Your task to perform on an android device: allow notifications from all sites in the chrome app Image 0: 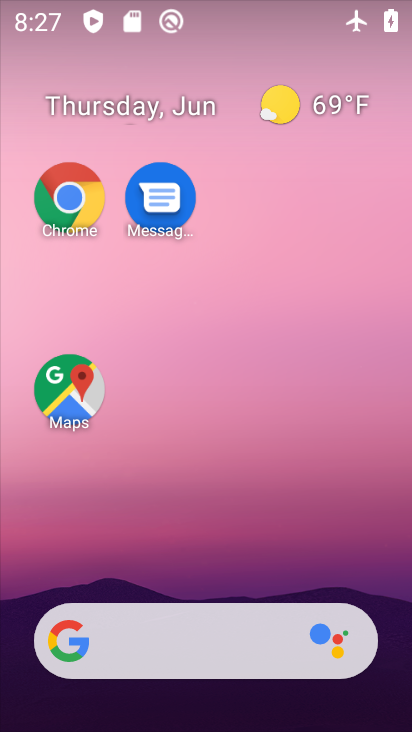
Step 0: click (63, 183)
Your task to perform on an android device: allow notifications from all sites in the chrome app Image 1: 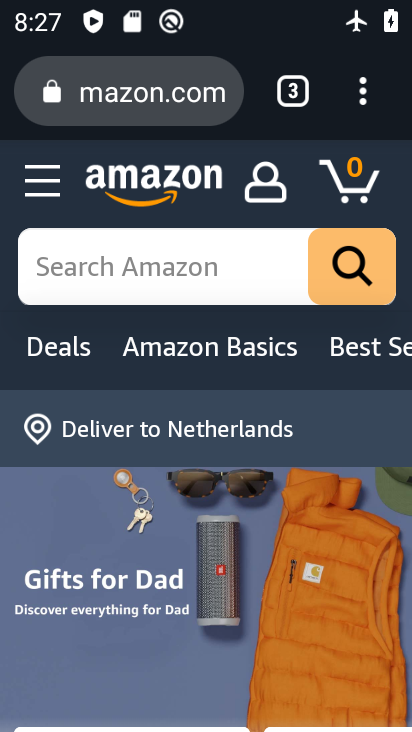
Step 1: click (359, 99)
Your task to perform on an android device: allow notifications from all sites in the chrome app Image 2: 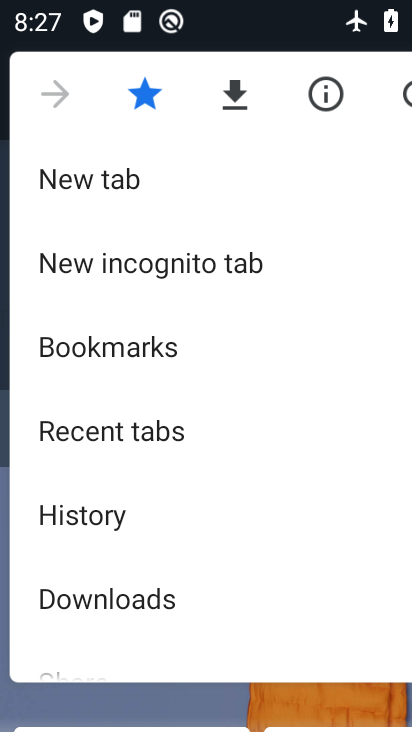
Step 2: drag from (294, 614) to (46, 8)
Your task to perform on an android device: allow notifications from all sites in the chrome app Image 3: 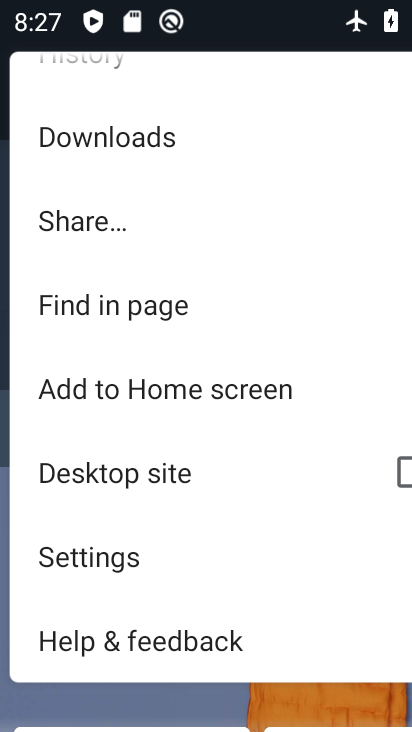
Step 3: click (72, 537)
Your task to perform on an android device: allow notifications from all sites in the chrome app Image 4: 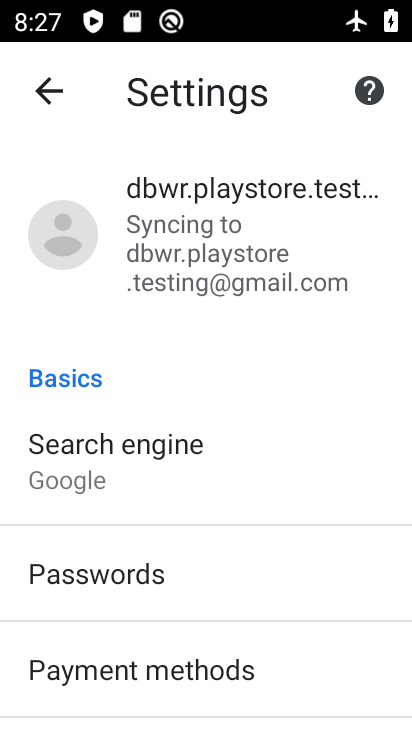
Step 4: drag from (140, 634) to (189, 186)
Your task to perform on an android device: allow notifications from all sites in the chrome app Image 5: 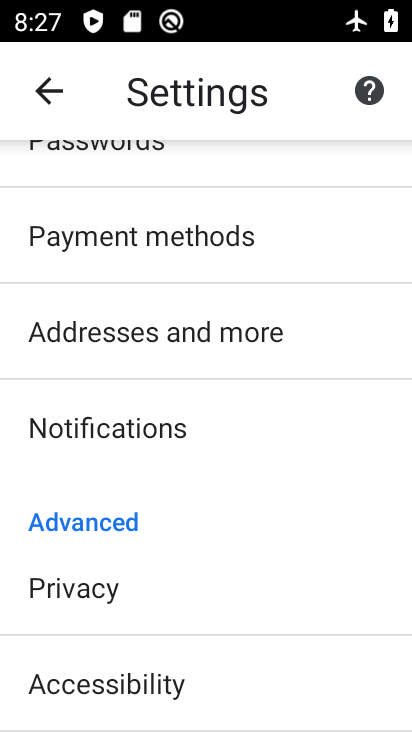
Step 5: drag from (140, 671) to (142, 315)
Your task to perform on an android device: allow notifications from all sites in the chrome app Image 6: 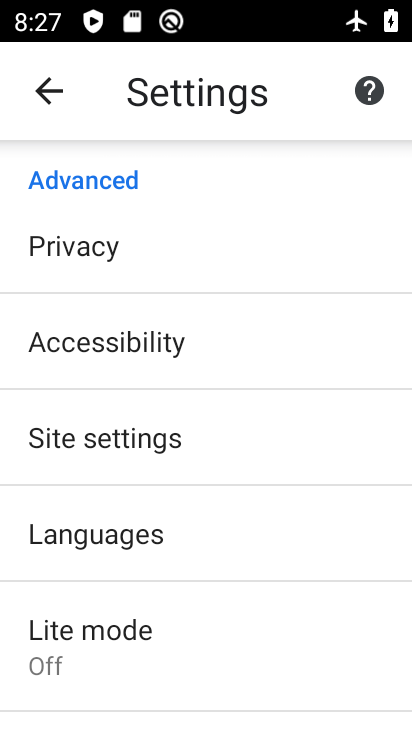
Step 6: click (137, 456)
Your task to perform on an android device: allow notifications from all sites in the chrome app Image 7: 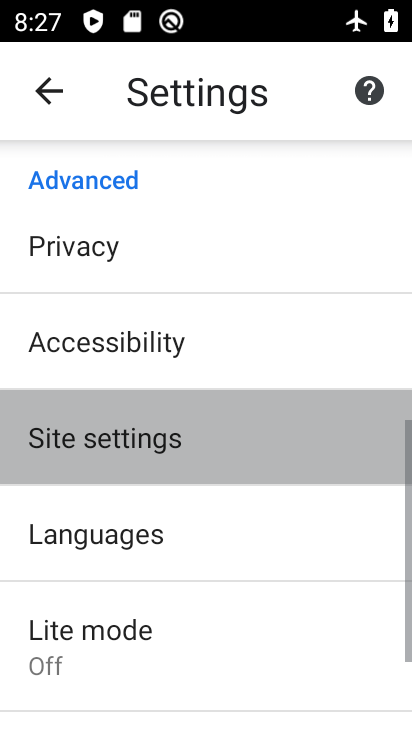
Step 7: click (137, 456)
Your task to perform on an android device: allow notifications from all sites in the chrome app Image 8: 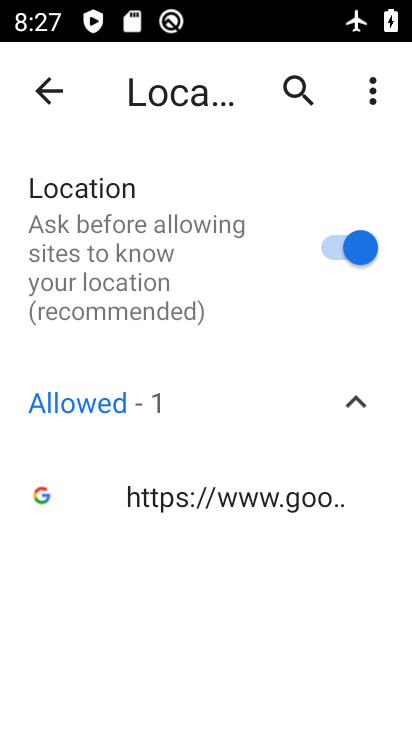
Step 8: click (51, 120)
Your task to perform on an android device: allow notifications from all sites in the chrome app Image 9: 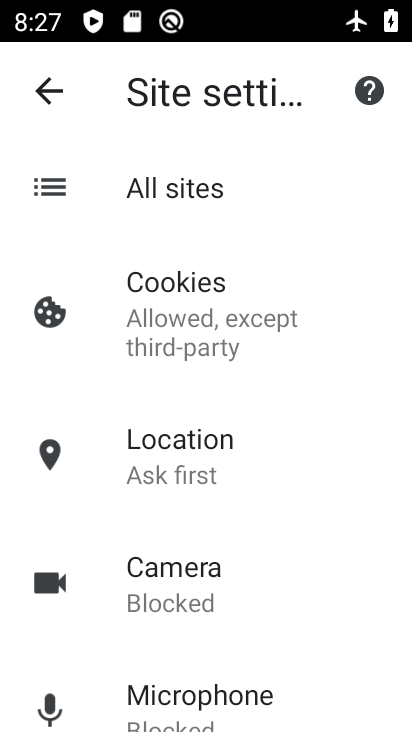
Step 9: drag from (180, 514) to (206, 142)
Your task to perform on an android device: allow notifications from all sites in the chrome app Image 10: 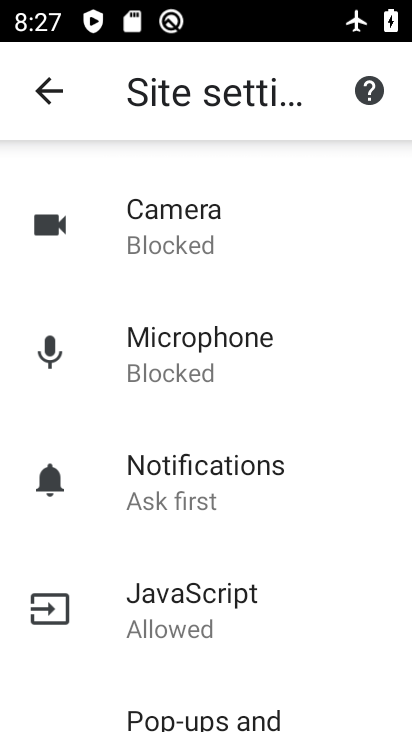
Step 10: click (182, 471)
Your task to perform on an android device: allow notifications from all sites in the chrome app Image 11: 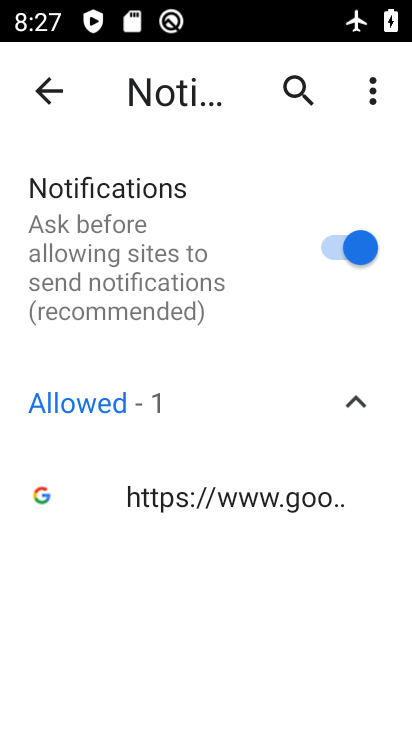
Step 11: task complete